Your task to perform on an android device: Go to Yahoo.com Image 0: 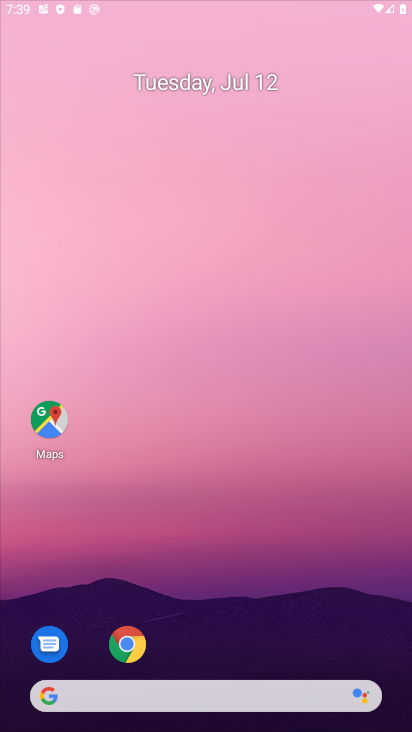
Step 0: click (263, 330)
Your task to perform on an android device: Go to Yahoo.com Image 1: 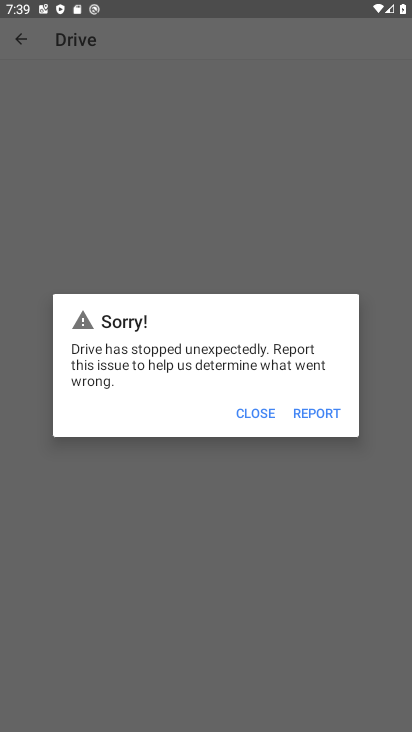
Step 1: press home button
Your task to perform on an android device: Go to Yahoo.com Image 2: 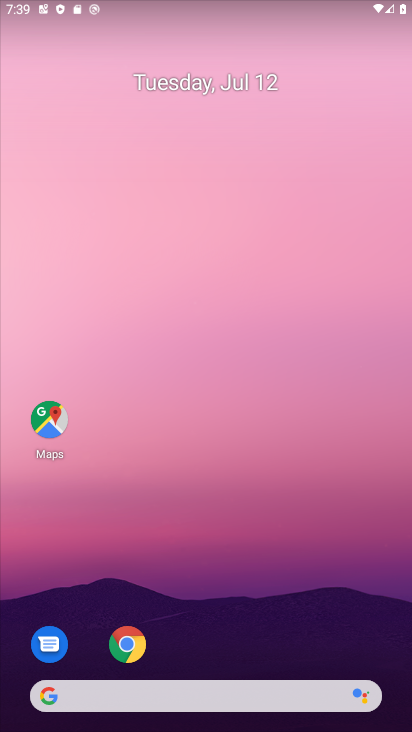
Step 2: click (129, 649)
Your task to perform on an android device: Go to Yahoo.com Image 3: 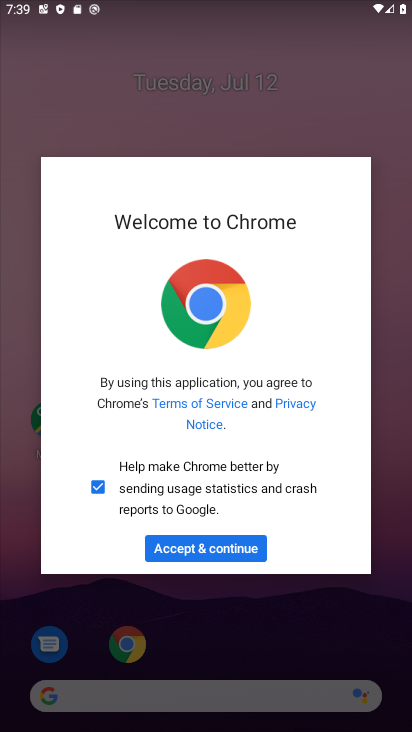
Step 3: click (197, 551)
Your task to perform on an android device: Go to Yahoo.com Image 4: 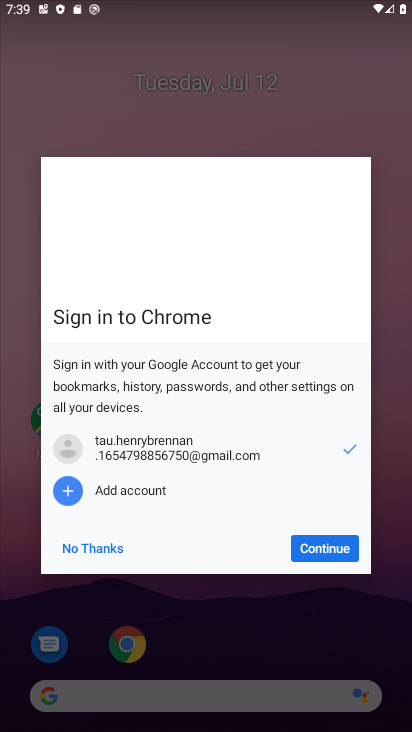
Step 4: click (324, 554)
Your task to perform on an android device: Go to Yahoo.com Image 5: 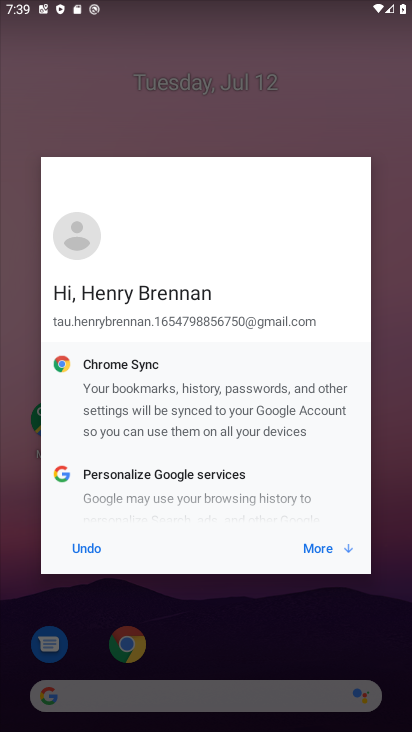
Step 5: click (324, 554)
Your task to perform on an android device: Go to Yahoo.com Image 6: 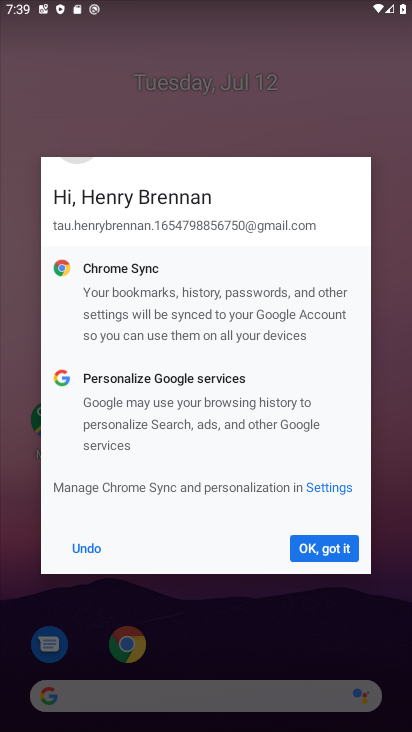
Step 6: click (324, 553)
Your task to perform on an android device: Go to Yahoo.com Image 7: 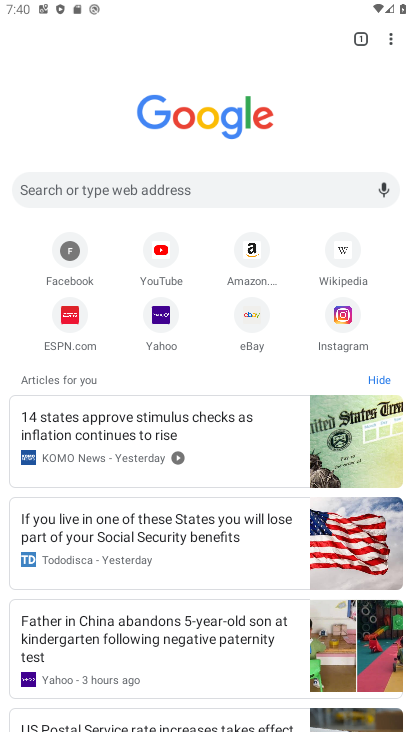
Step 7: click (160, 314)
Your task to perform on an android device: Go to Yahoo.com Image 8: 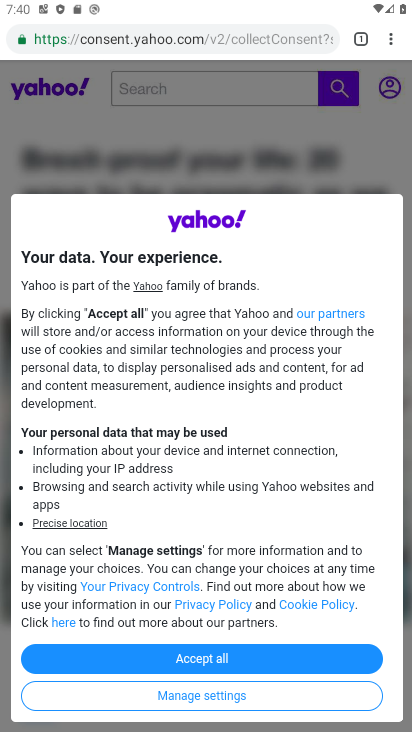
Step 8: task complete